Your task to perform on an android device: toggle translation in the chrome app Image 0: 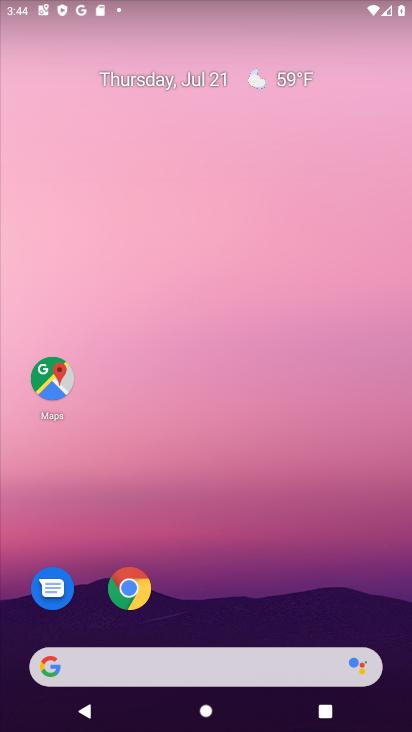
Step 0: click (126, 594)
Your task to perform on an android device: toggle translation in the chrome app Image 1: 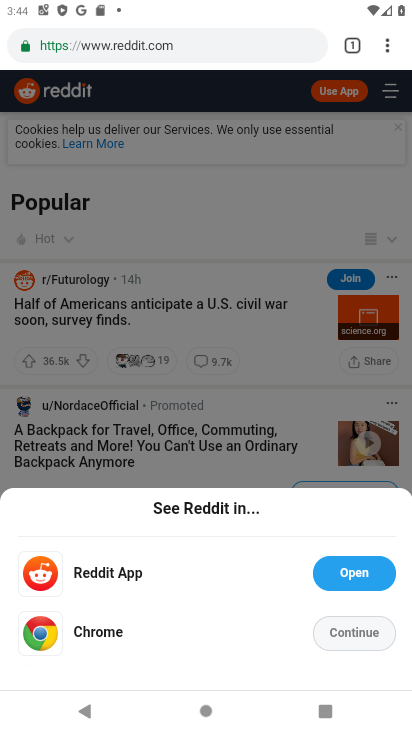
Step 1: click (387, 49)
Your task to perform on an android device: toggle translation in the chrome app Image 2: 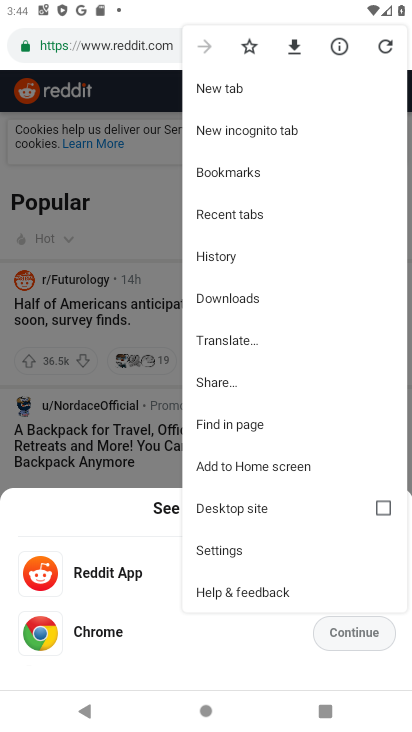
Step 2: click (225, 551)
Your task to perform on an android device: toggle translation in the chrome app Image 3: 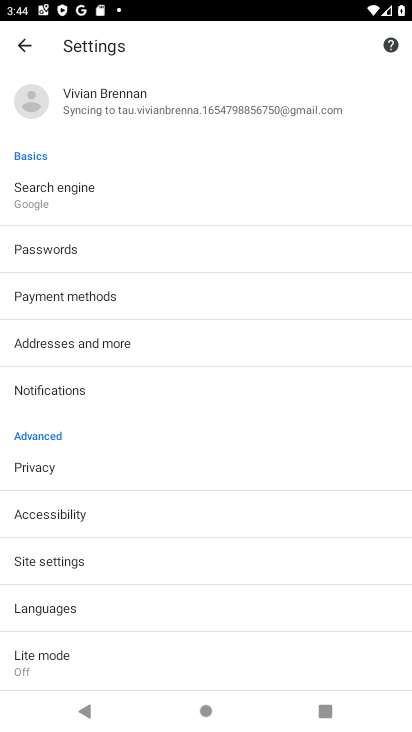
Step 3: click (43, 611)
Your task to perform on an android device: toggle translation in the chrome app Image 4: 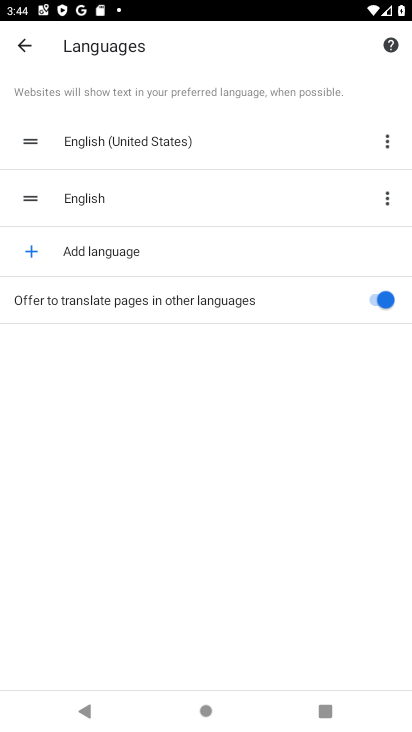
Step 4: click (377, 298)
Your task to perform on an android device: toggle translation in the chrome app Image 5: 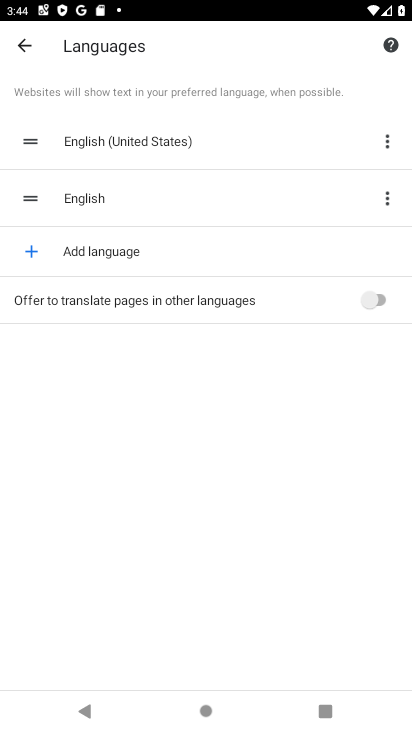
Step 5: task complete